Your task to perform on an android device: turn off airplane mode Image 0: 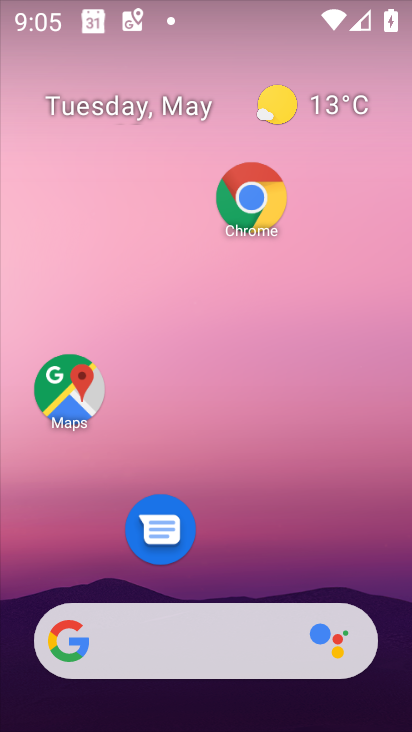
Step 0: drag from (312, 570) to (313, 133)
Your task to perform on an android device: turn off airplane mode Image 1: 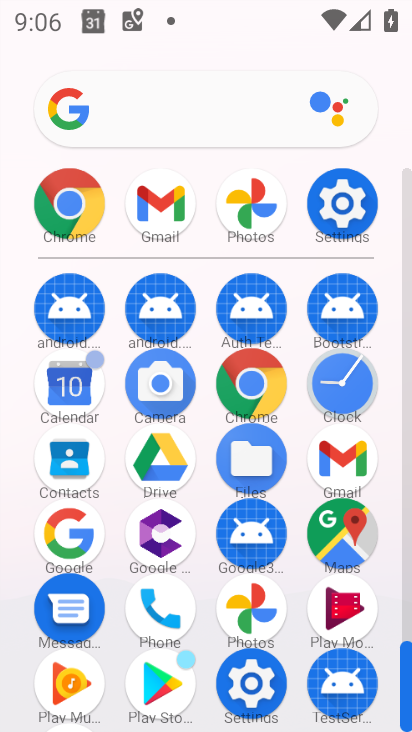
Step 1: click (348, 186)
Your task to perform on an android device: turn off airplane mode Image 2: 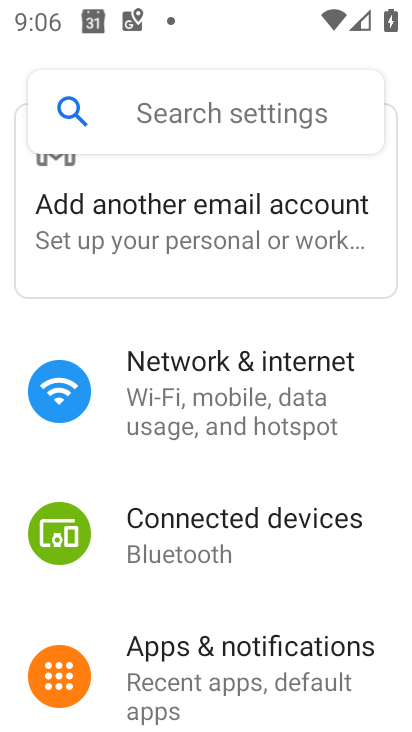
Step 2: click (268, 416)
Your task to perform on an android device: turn off airplane mode Image 3: 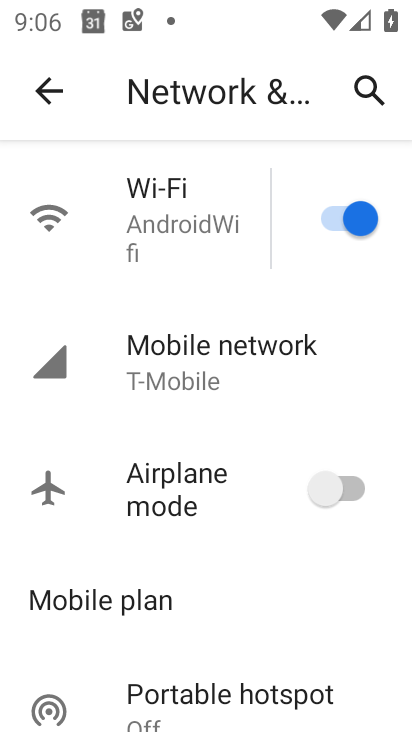
Step 3: task complete